Your task to perform on an android device: Open accessibility settings Image 0: 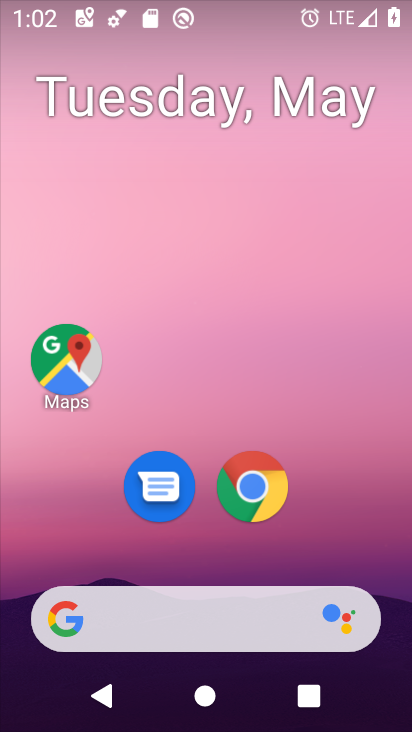
Step 0: drag from (72, 730) to (254, 155)
Your task to perform on an android device: Open accessibility settings Image 1: 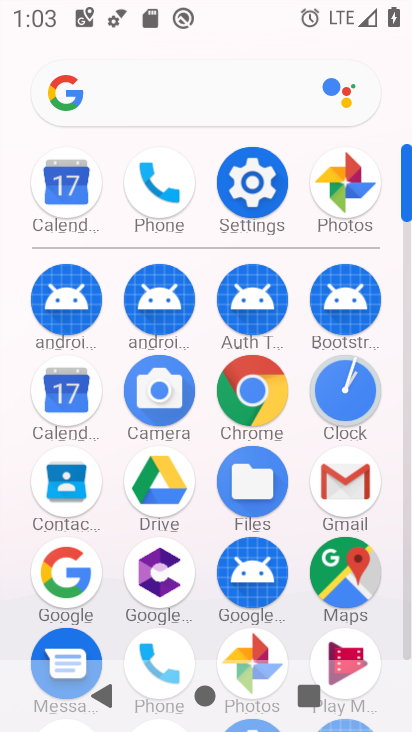
Step 1: click (245, 184)
Your task to perform on an android device: Open accessibility settings Image 2: 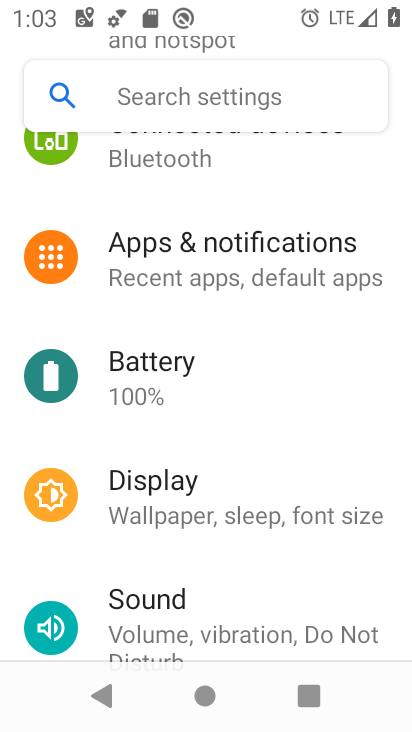
Step 2: drag from (1, 625) to (215, 196)
Your task to perform on an android device: Open accessibility settings Image 3: 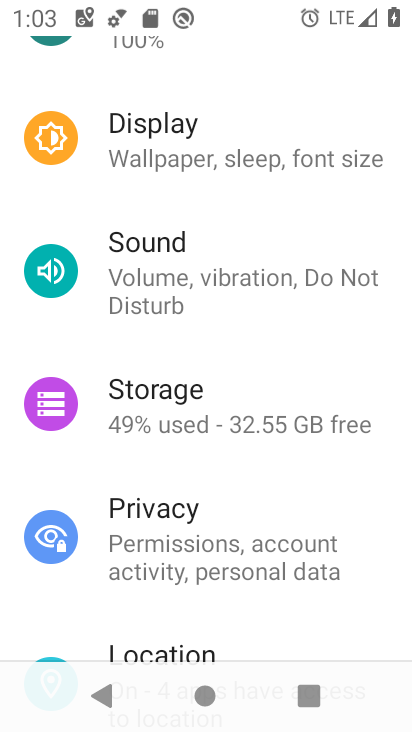
Step 3: drag from (29, 543) to (163, 244)
Your task to perform on an android device: Open accessibility settings Image 4: 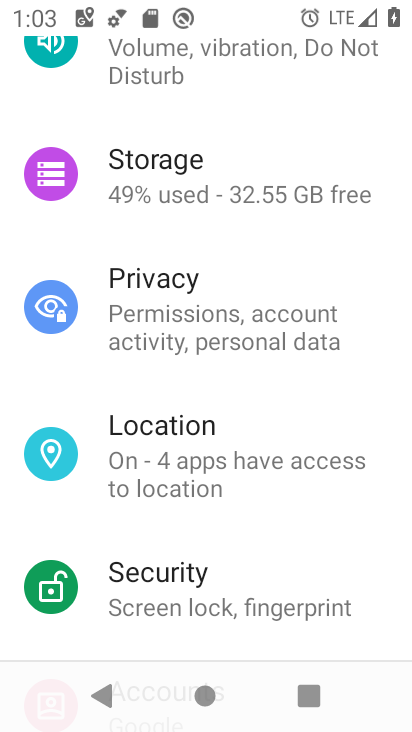
Step 4: drag from (1, 656) to (202, 210)
Your task to perform on an android device: Open accessibility settings Image 5: 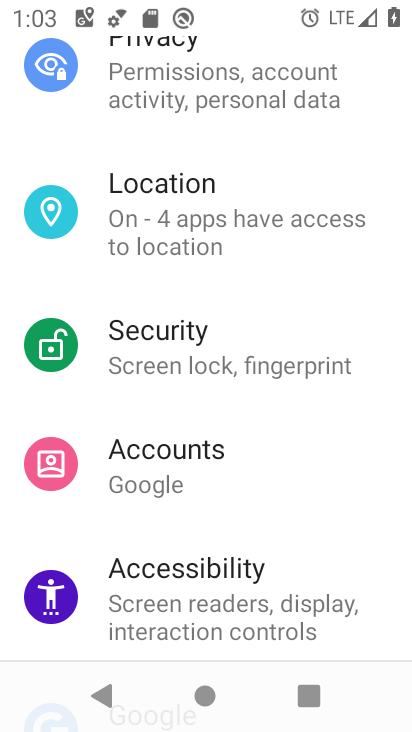
Step 5: click (195, 574)
Your task to perform on an android device: Open accessibility settings Image 6: 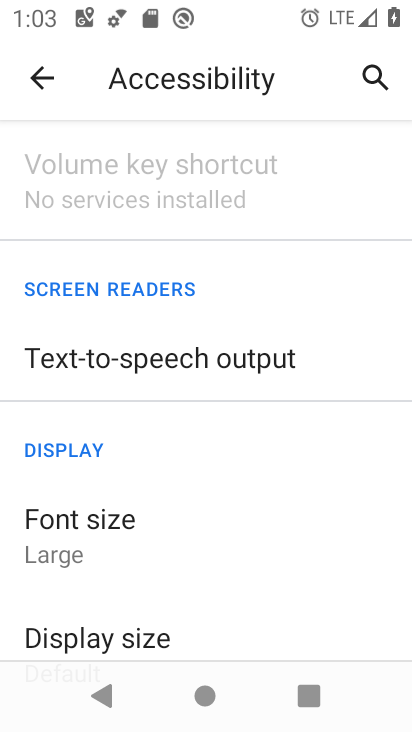
Step 6: task complete